Your task to perform on an android device: turn off improve location accuracy Image 0: 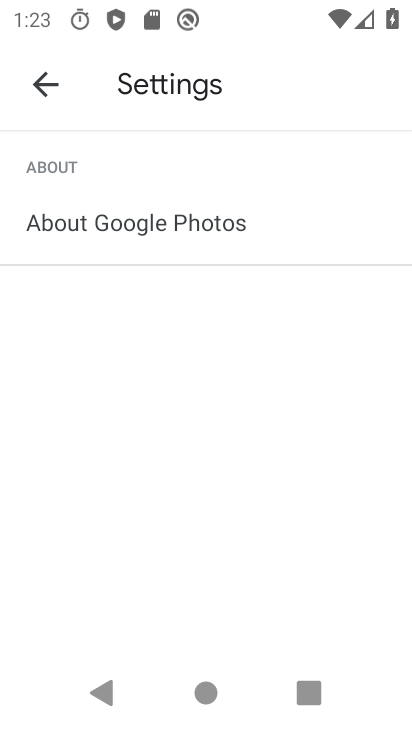
Step 0: press home button
Your task to perform on an android device: turn off improve location accuracy Image 1: 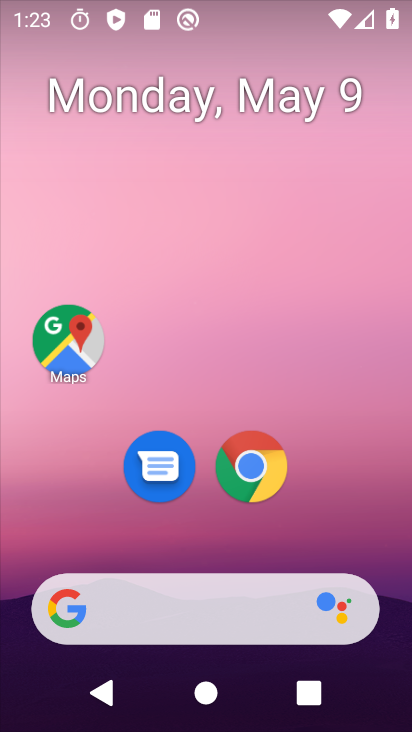
Step 1: drag from (198, 559) to (197, 326)
Your task to perform on an android device: turn off improve location accuracy Image 2: 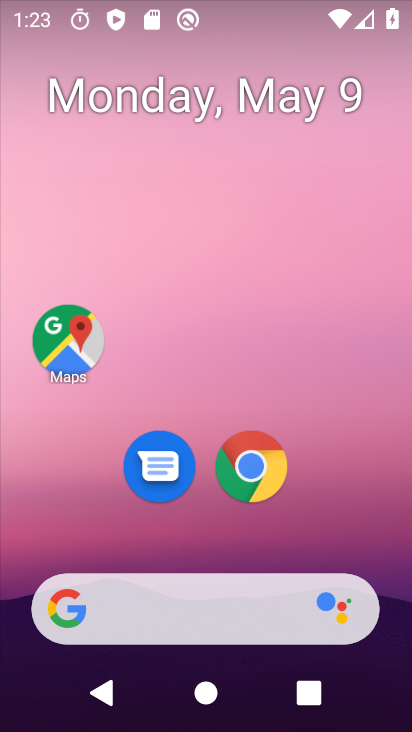
Step 2: drag from (204, 591) to (210, 323)
Your task to perform on an android device: turn off improve location accuracy Image 3: 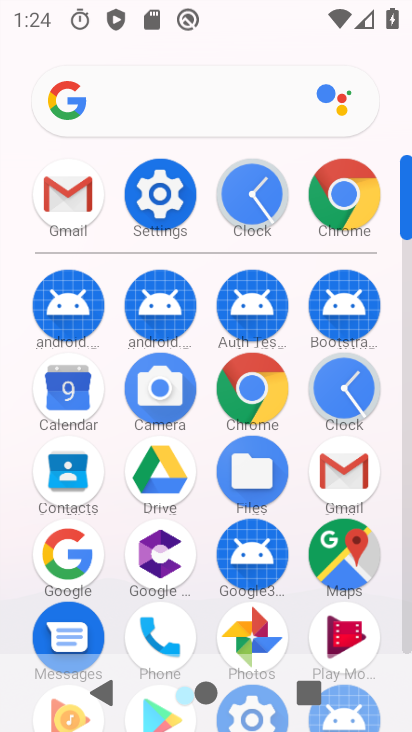
Step 3: click (162, 180)
Your task to perform on an android device: turn off improve location accuracy Image 4: 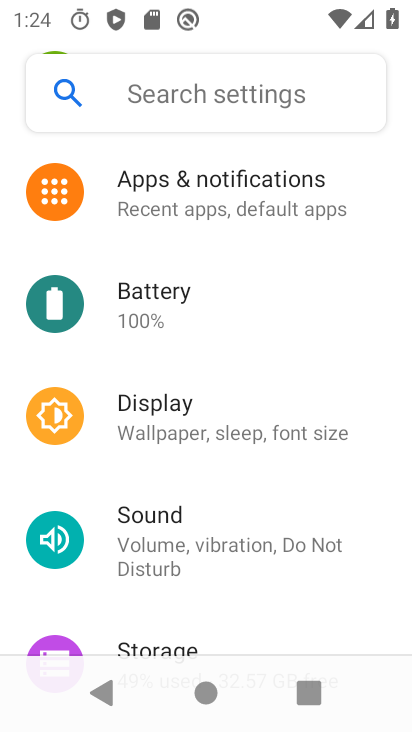
Step 4: drag from (179, 370) to (197, 242)
Your task to perform on an android device: turn off improve location accuracy Image 5: 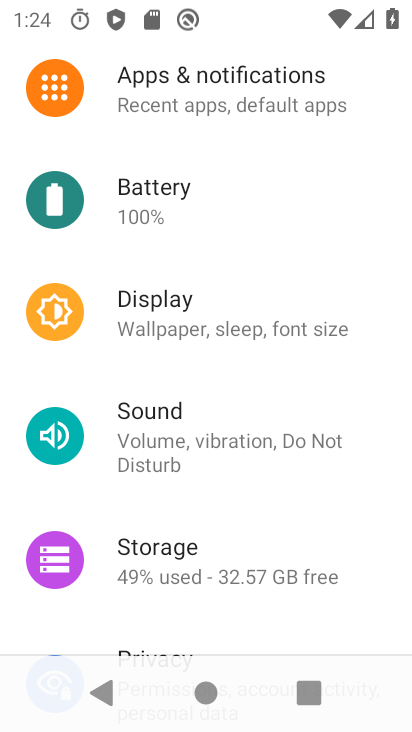
Step 5: drag from (179, 398) to (182, 271)
Your task to perform on an android device: turn off improve location accuracy Image 6: 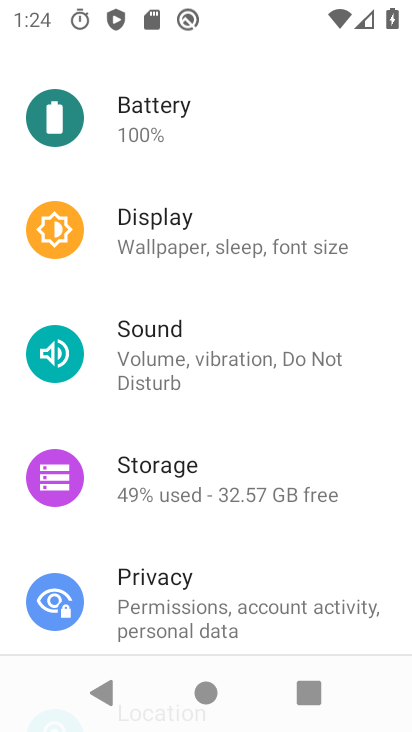
Step 6: drag from (188, 419) to (185, 226)
Your task to perform on an android device: turn off improve location accuracy Image 7: 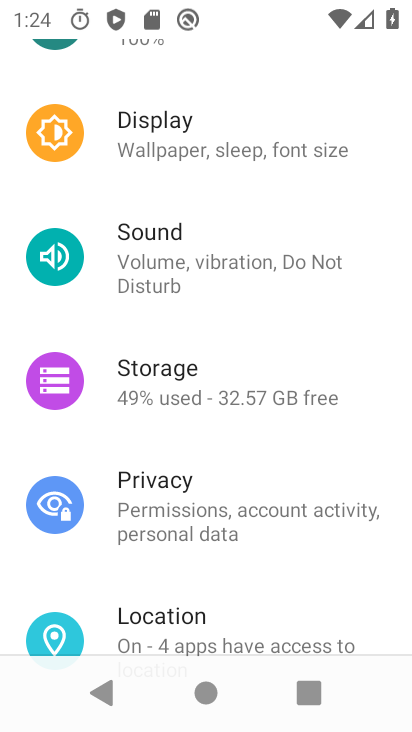
Step 7: drag from (194, 436) to (188, 202)
Your task to perform on an android device: turn off improve location accuracy Image 8: 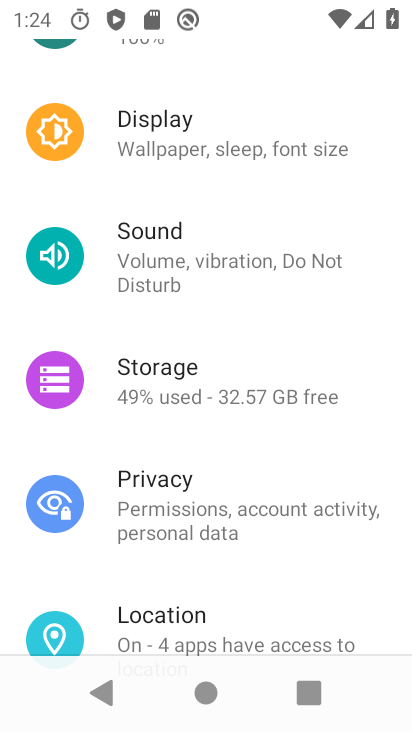
Step 8: drag from (199, 392) to (196, 134)
Your task to perform on an android device: turn off improve location accuracy Image 9: 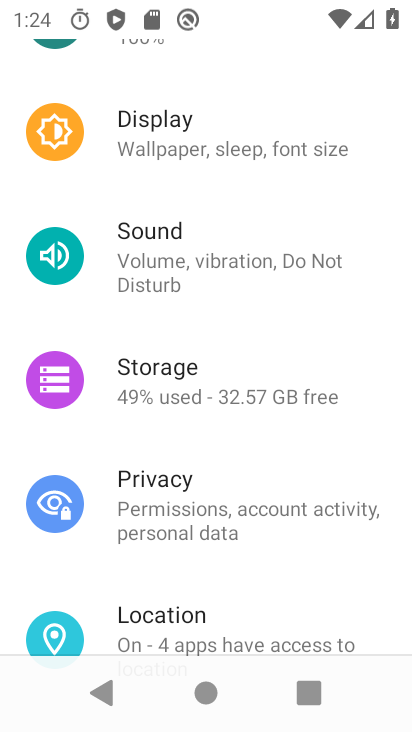
Step 9: drag from (198, 290) to (197, 80)
Your task to perform on an android device: turn off improve location accuracy Image 10: 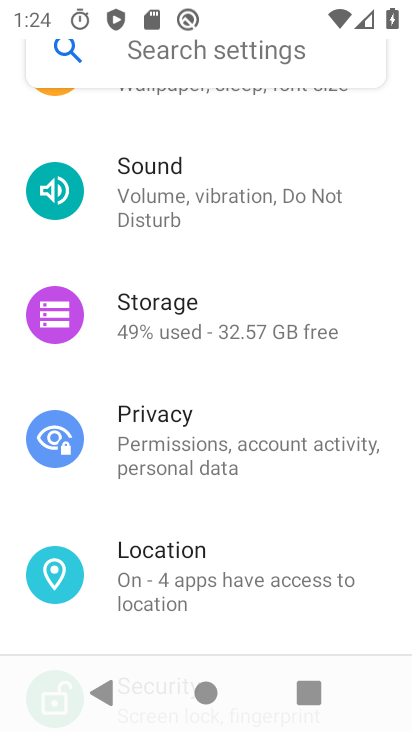
Step 10: drag from (159, 466) to (175, 218)
Your task to perform on an android device: turn off improve location accuracy Image 11: 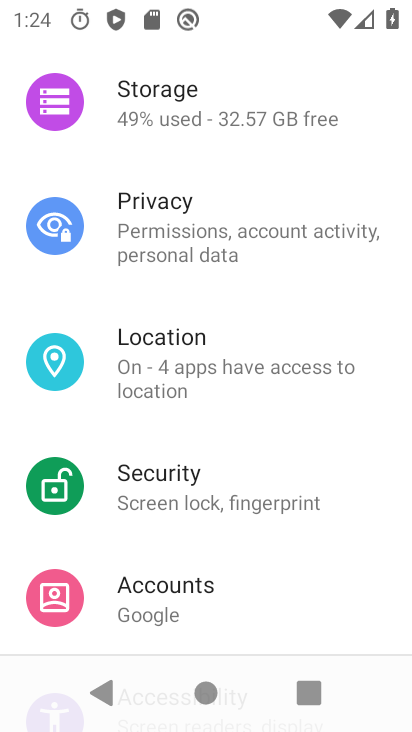
Step 11: click (128, 375)
Your task to perform on an android device: turn off improve location accuracy Image 12: 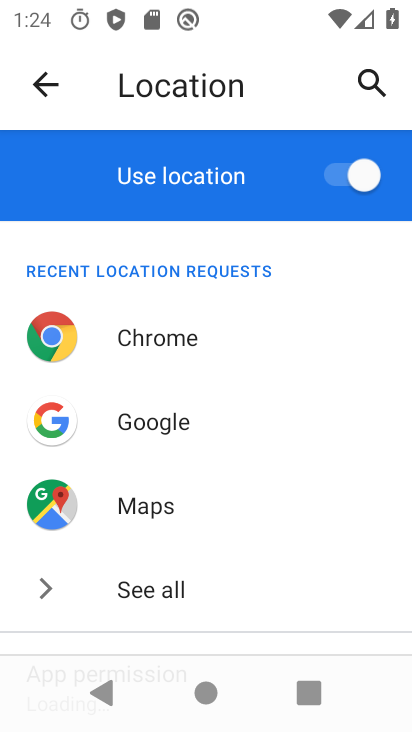
Step 12: drag from (204, 607) to (276, 288)
Your task to perform on an android device: turn off improve location accuracy Image 13: 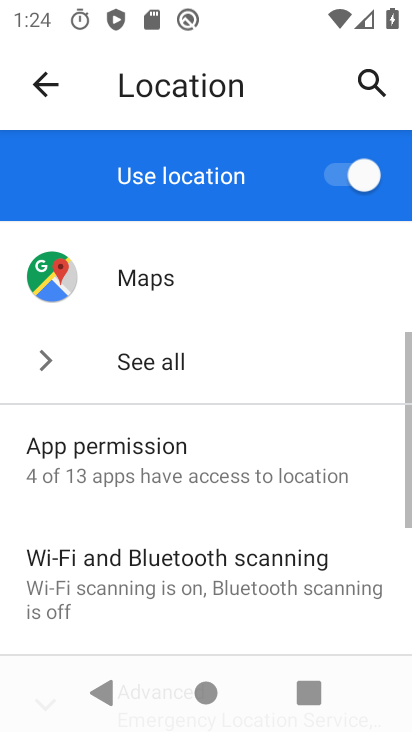
Step 13: drag from (219, 575) to (250, 289)
Your task to perform on an android device: turn off improve location accuracy Image 14: 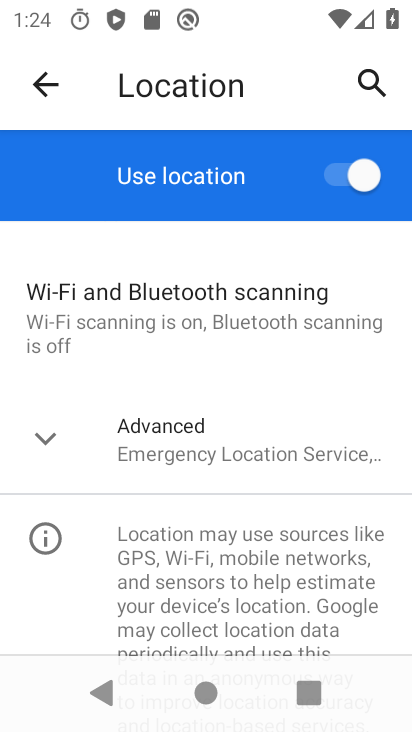
Step 14: click (190, 458)
Your task to perform on an android device: turn off improve location accuracy Image 15: 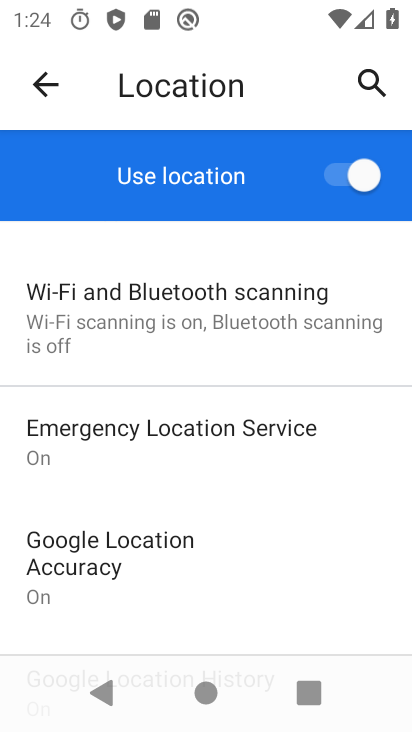
Step 15: click (155, 582)
Your task to perform on an android device: turn off improve location accuracy Image 16: 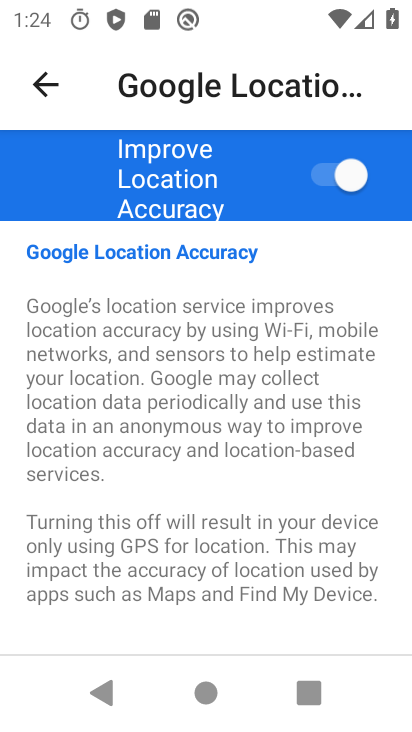
Step 16: click (322, 186)
Your task to perform on an android device: turn off improve location accuracy Image 17: 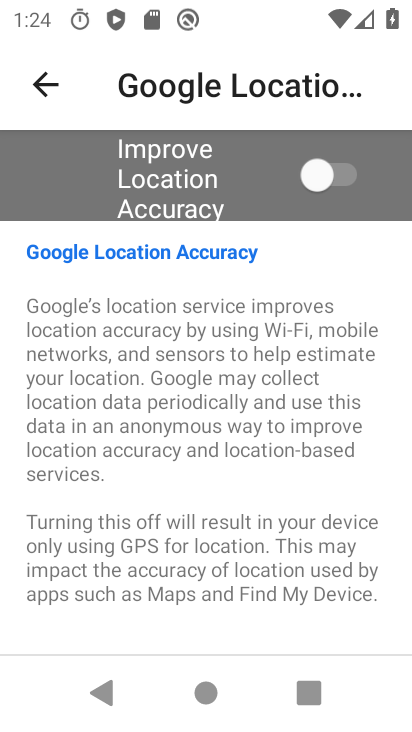
Step 17: task complete